Your task to perform on an android device: open app "Spotify" (install if not already installed) and go to login screen Image 0: 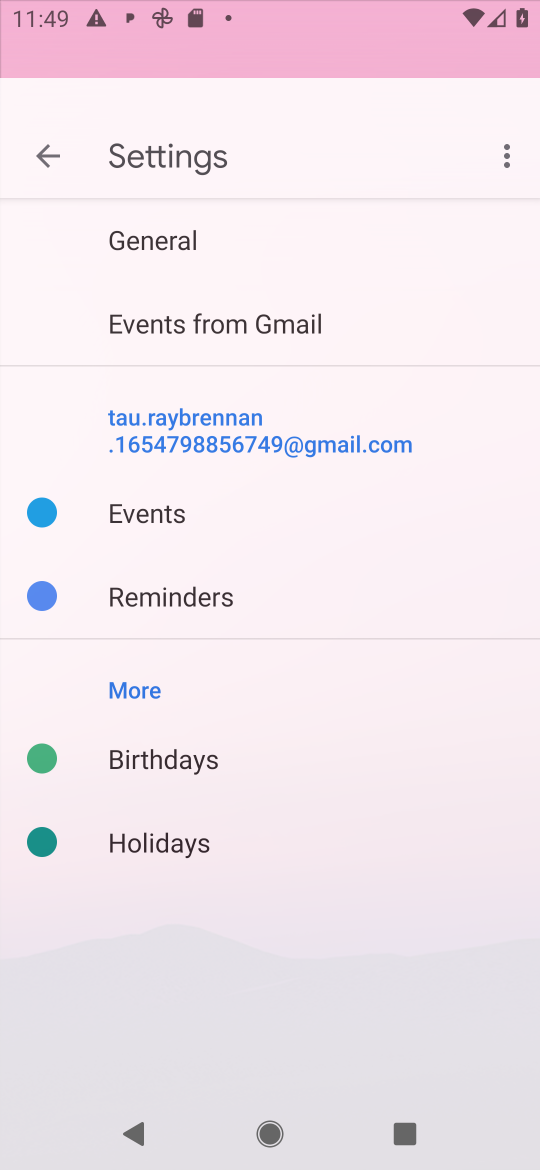
Step 0: press home button
Your task to perform on an android device: open app "Spotify" (install if not already installed) and go to login screen Image 1: 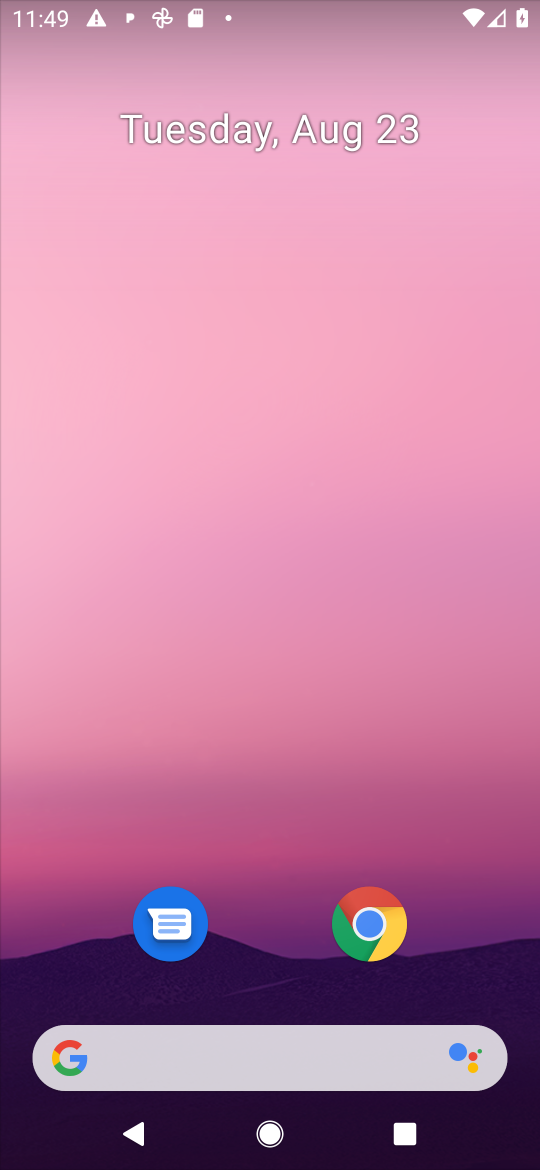
Step 1: drag from (467, 989) to (501, 86)
Your task to perform on an android device: open app "Spotify" (install if not already installed) and go to login screen Image 2: 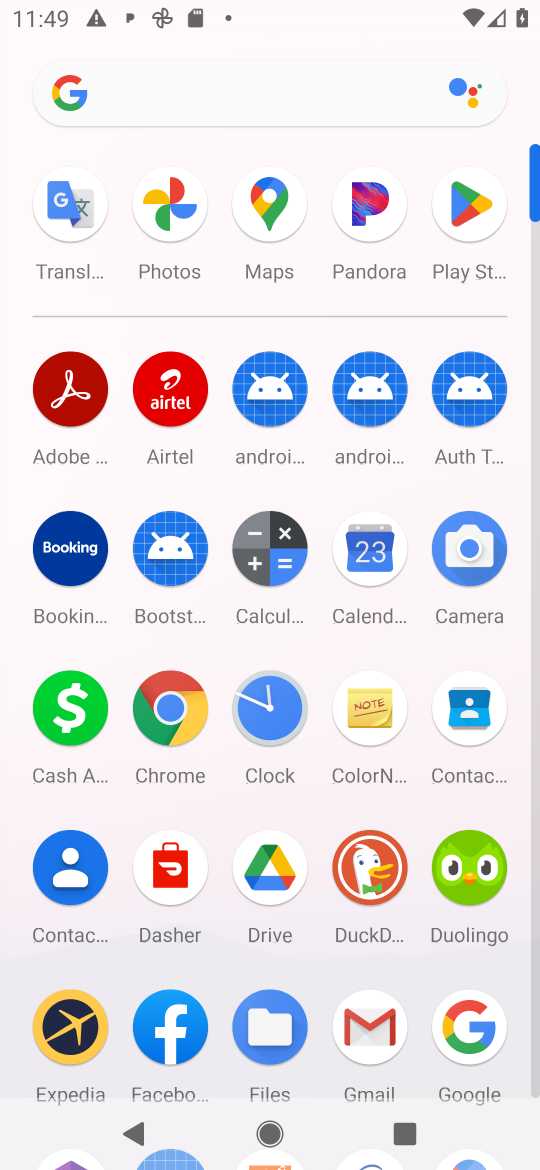
Step 2: click (462, 206)
Your task to perform on an android device: open app "Spotify" (install if not already installed) and go to login screen Image 3: 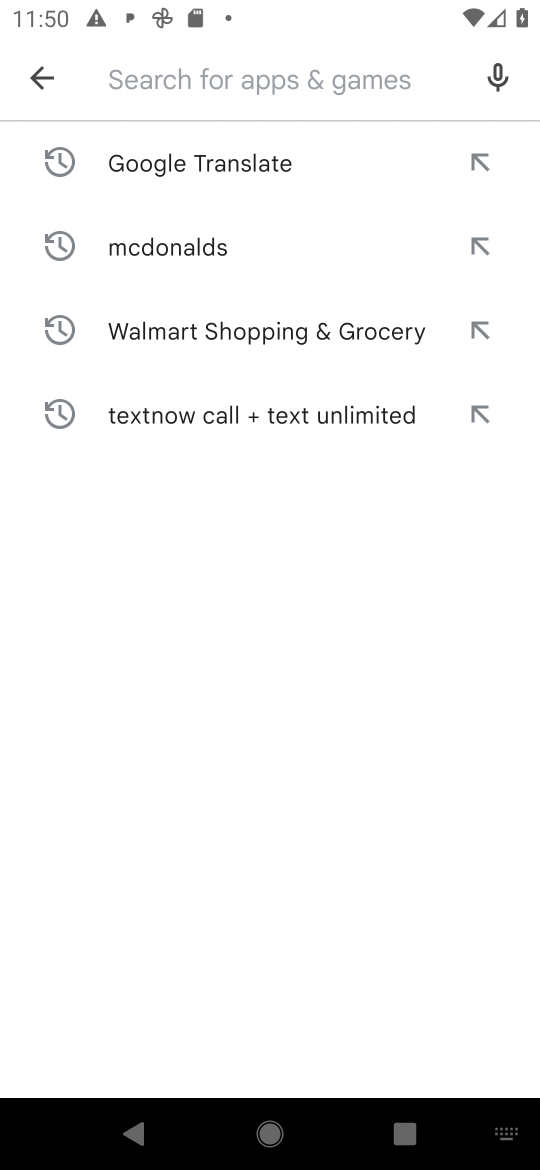
Step 3: type "Spotify"
Your task to perform on an android device: open app "Spotify" (install if not already installed) and go to login screen Image 4: 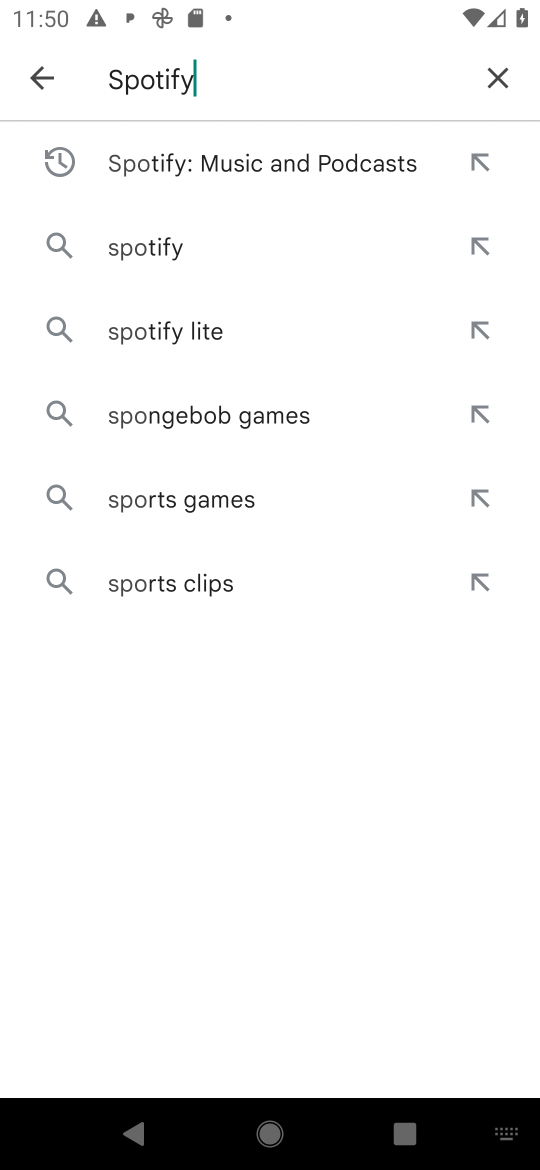
Step 4: press enter
Your task to perform on an android device: open app "Spotify" (install if not already installed) and go to login screen Image 5: 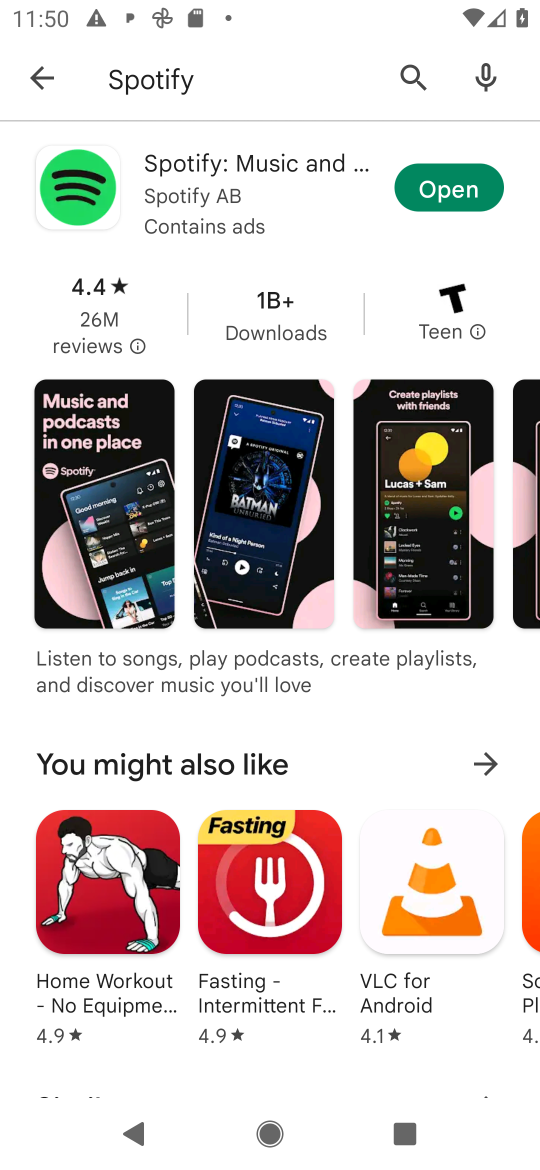
Step 5: click (464, 182)
Your task to perform on an android device: open app "Spotify" (install if not already installed) and go to login screen Image 6: 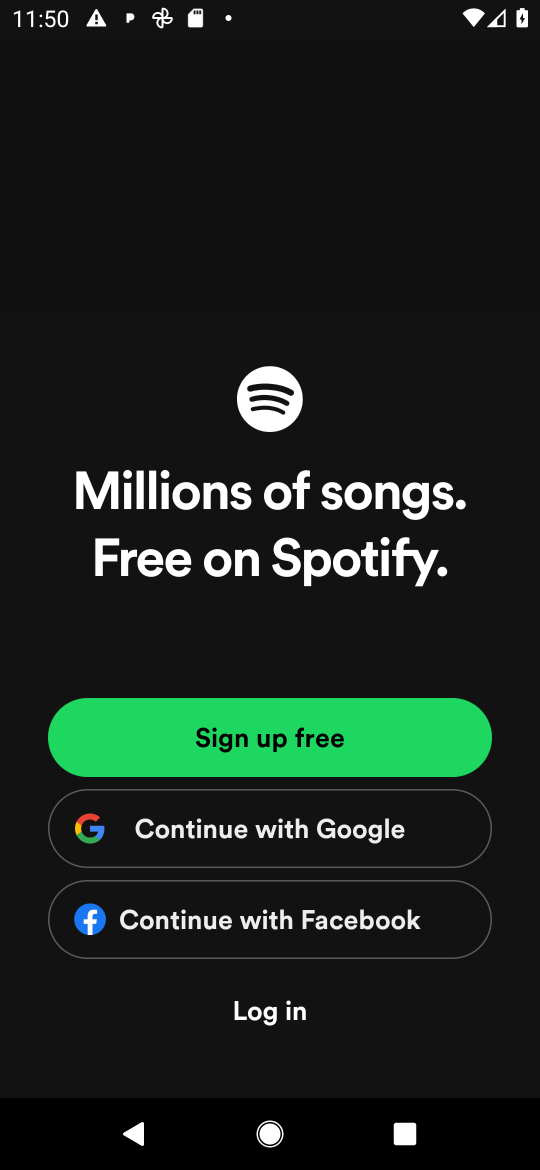
Step 6: task complete